Your task to perform on an android device: Show me the alarms in the clock app Image 0: 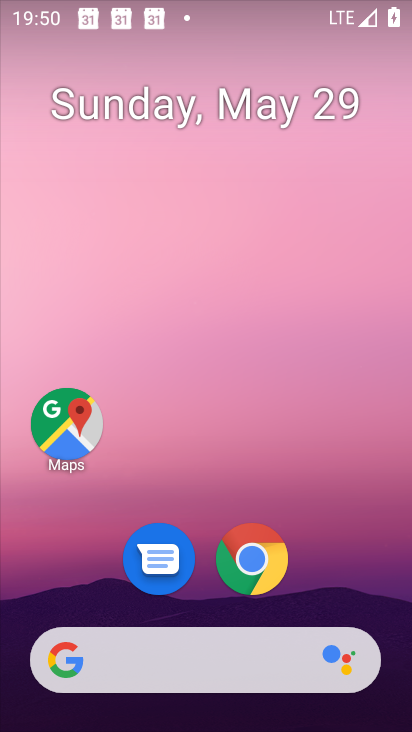
Step 0: drag from (352, 605) to (354, 169)
Your task to perform on an android device: Show me the alarms in the clock app Image 1: 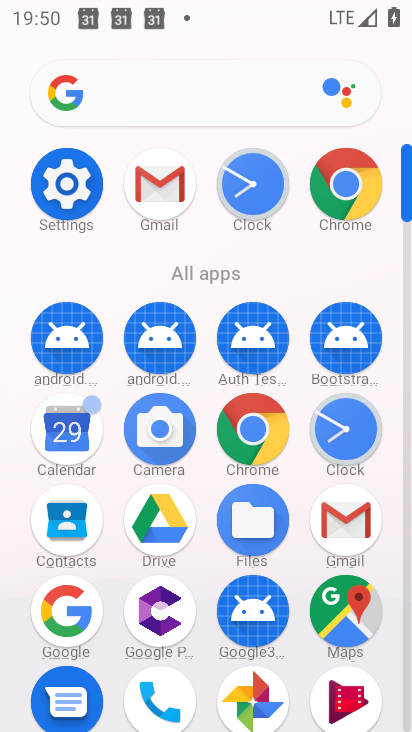
Step 1: click (366, 433)
Your task to perform on an android device: Show me the alarms in the clock app Image 2: 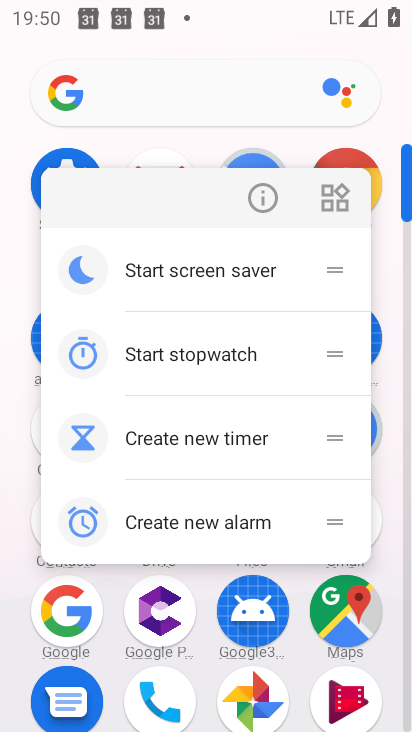
Step 2: click (383, 450)
Your task to perform on an android device: Show me the alarms in the clock app Image 3: 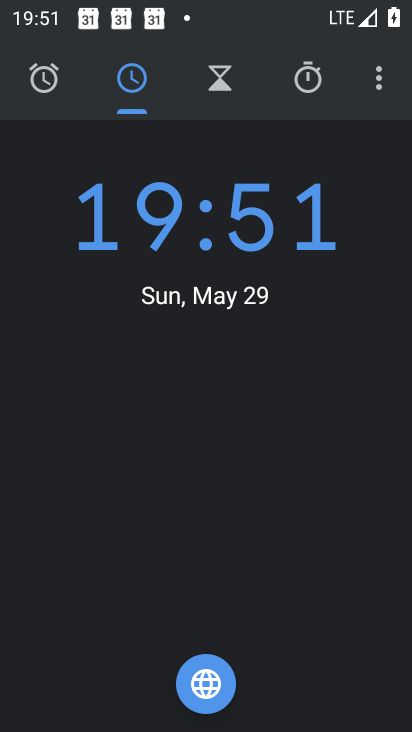
Step 3: click (33, 74)
Your task to perform on an android device: Show me the alarms in the clock app Image 4: 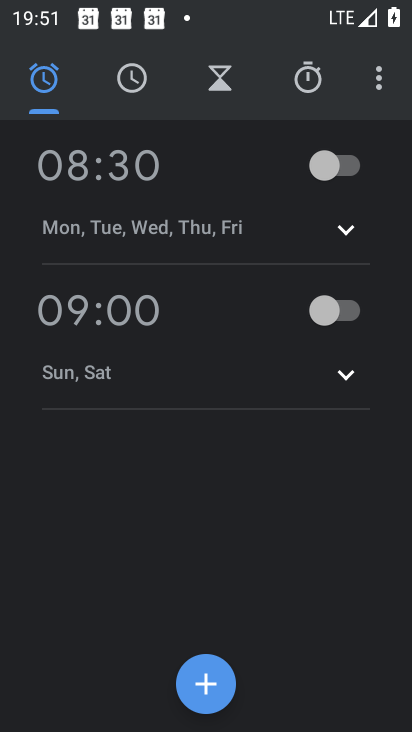
Step 4: task complete